Your task to perform on an android device: Open calendar and show me the first week of next month Image 0: 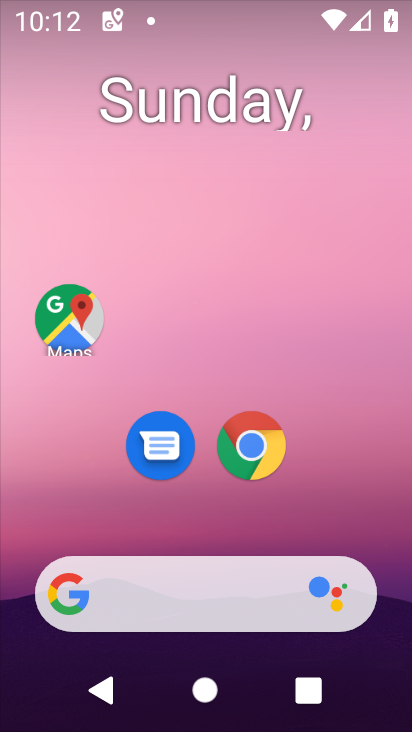
Step 0: press home button
Your task to perform on an android device: Open calendar and show me the first week of next month Image 1: 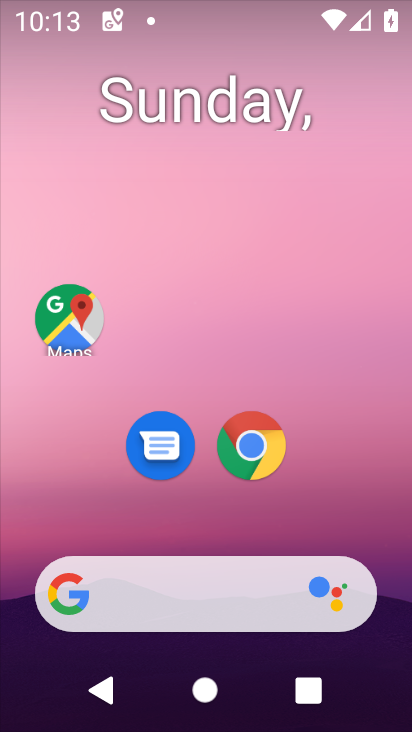
Step 1: drag from (346, 492) to (350, 194)
Your task to perform on an android device: Open calendar and show me the first week of next month Image 2: 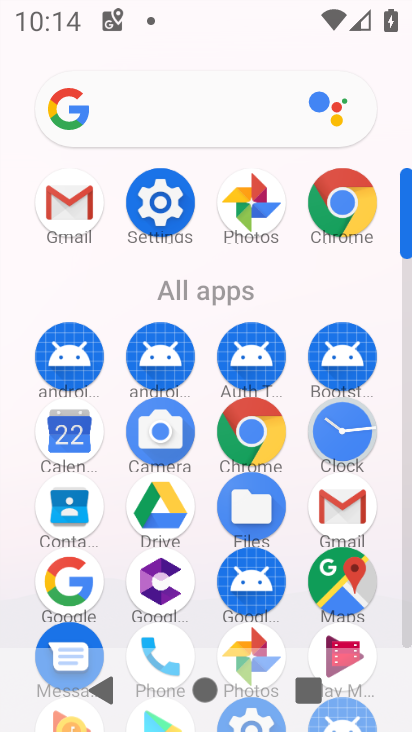
Step 2: click (65, 460)
Your task to perform on an android device: Open calendar and show me the first week of next month Image 3: 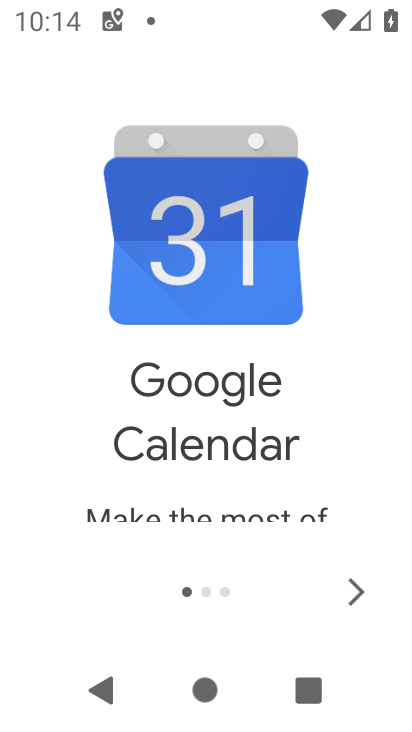
Step 3: click (348, 603)
Your task to perform on an android device: Open calendar and show me the first week of next month Image 4: 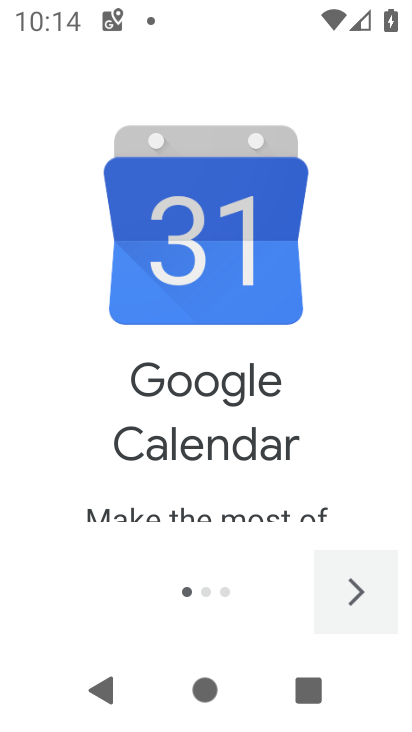
Step 4: click (348, 603)
Your task to perform on an android device: Open calendar and show me the first week of next month Image 5: 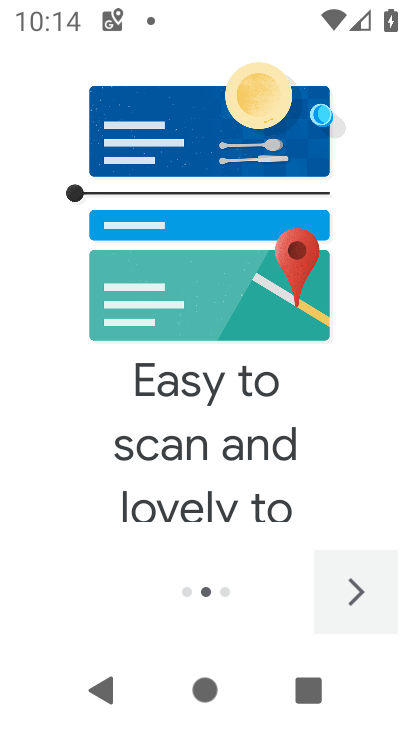
Step 5: click (348, 603)
Your task to perform on an android device: Open calendar and show me the first week of next month Image 6: 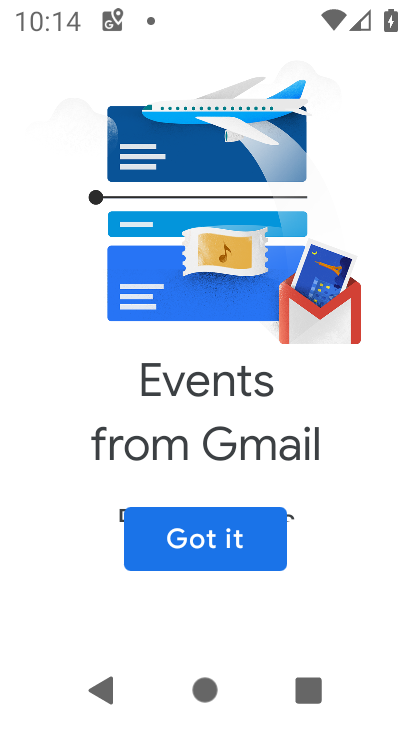
Step 6: click (348, 603)
Your task to perform on an android device: Open calendar and show me the first week of next month Image 7: 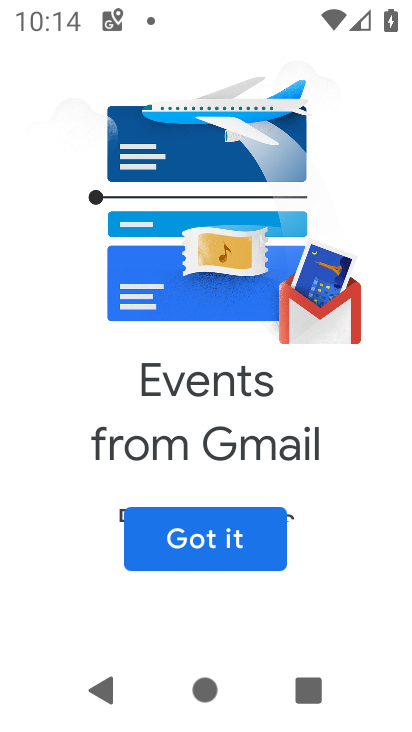
Step 7: click (184, 556)
Your task to perform on an android device: Open calendar and show me the first week of next month Image 8: 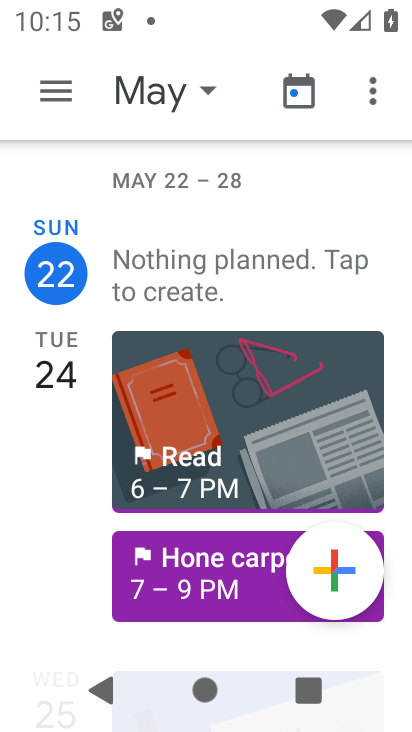
Step 8: click (211, 83)
Your task to perform on an android device: Open calendar and show me the first week of next month Image 9: 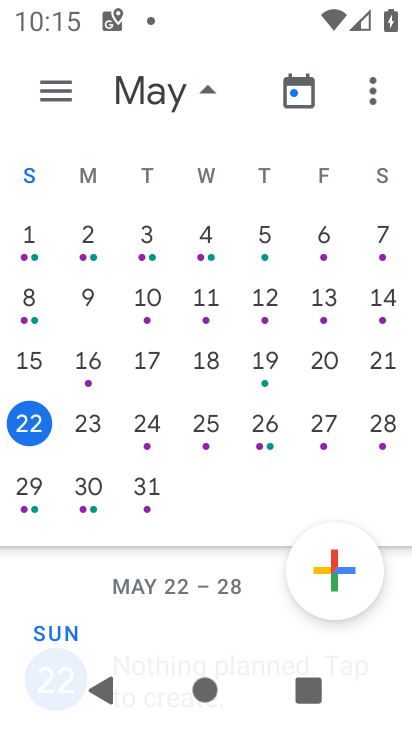
Step 9: task complete